Your task to perform on an android device: change alarm snooze length Image 0: 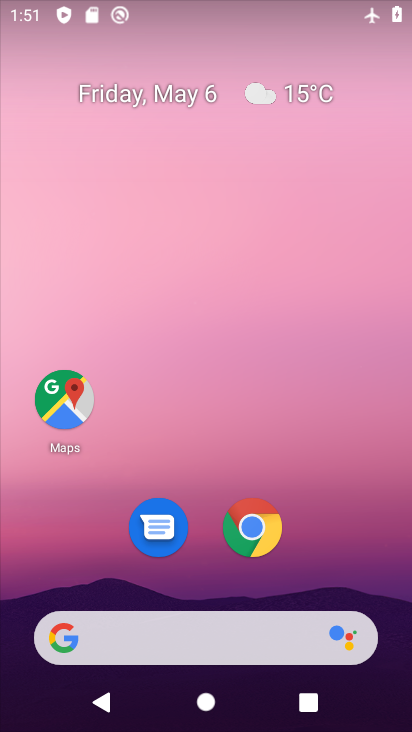
Step 0: drag from (343, 566) to (41, 96)
Your task to perform on an android device: change alarm snooze length Image 1: 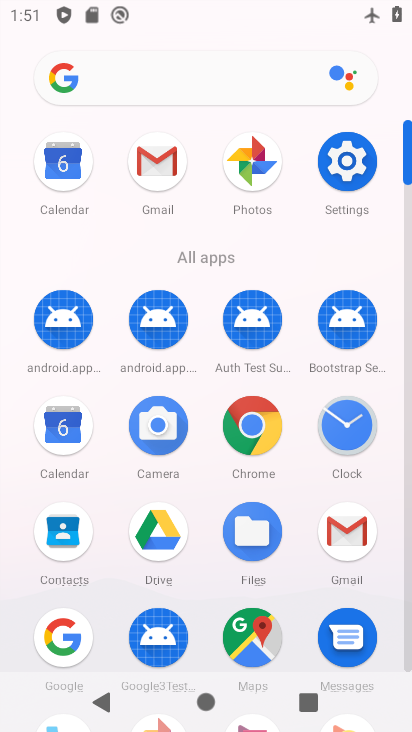
Step 1: click (342, 428)
Your task to perform on an android device: change alarm snooze length Image 2: 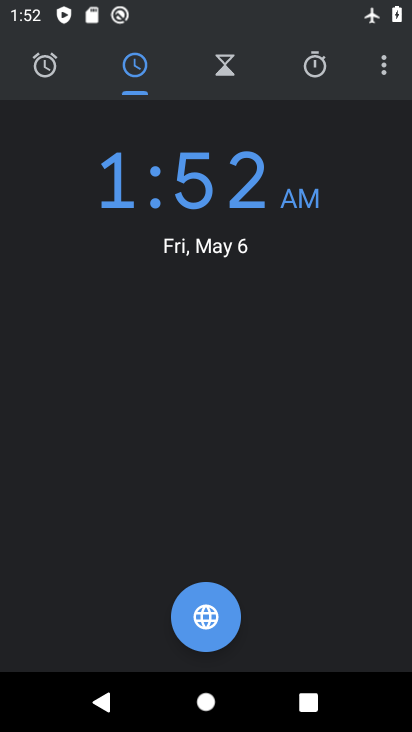
Step 2: click (382, 67)
Your task to perform on an android device: change alarm snooze length Image 3: 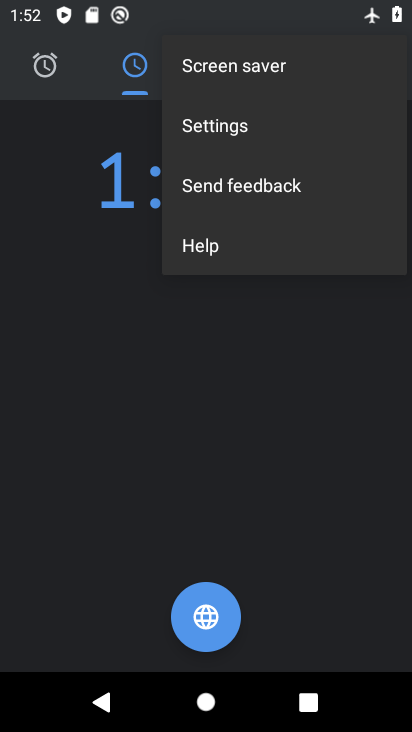
Step 3: click (200, 133)
Your task to perform on an android device: change alarm snooze length Image 4: 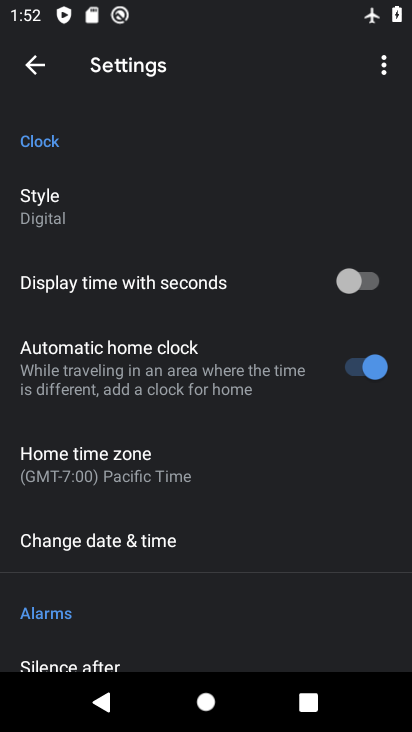
Step 4: drag from (192, 641) to (166, 252)
Your task to perform on an android device: change alarm snooze length Image 5: 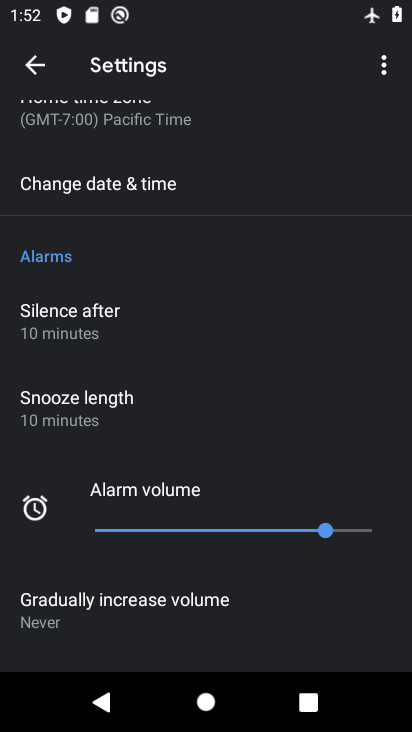
Step 5: click (76, 404)
Your task to perform on an android device: change alarm snooze length Image 6: 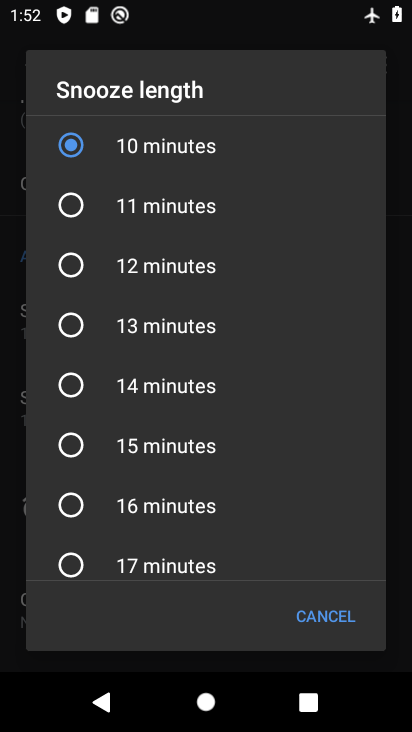
Step 6: click (148, 500)
Your task to perform on an android device: change alarm snooze length Image 7: 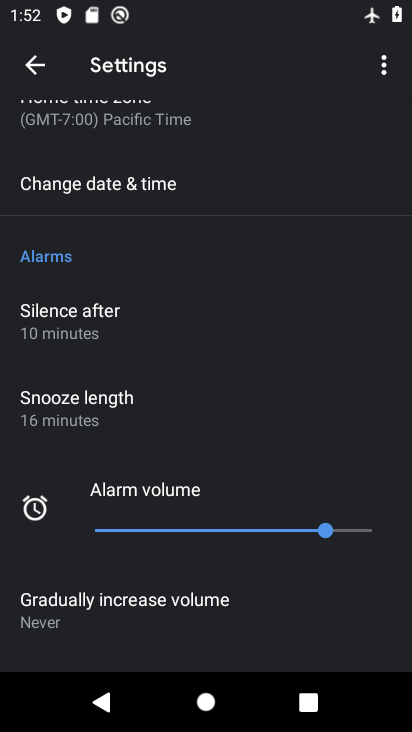
Step 7: task complete